Your task to perform on an android device: move a message to another label in the gmail app Image 0: 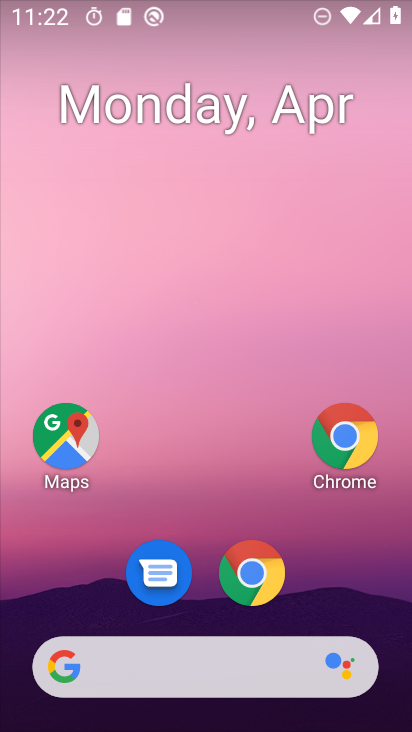
Step 0: drag from (335, 490) to (250, 17)
Your task to perform on an android device: move a message to another label in the gmail app Image 1: 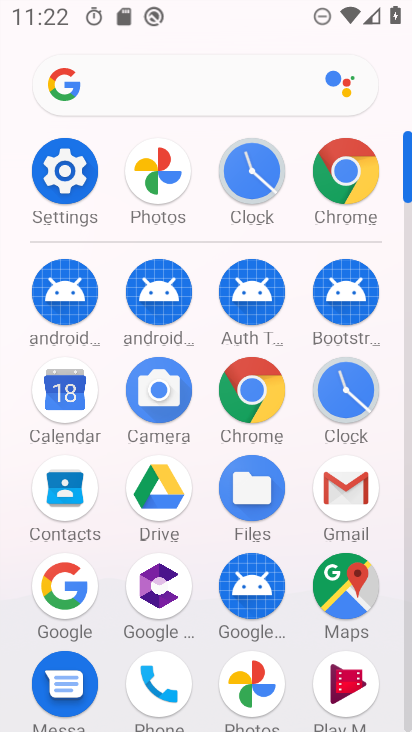
Step 1: click (341, 460)
Your task to perform on an android device: move a message to another label in the gmail app Image 2: 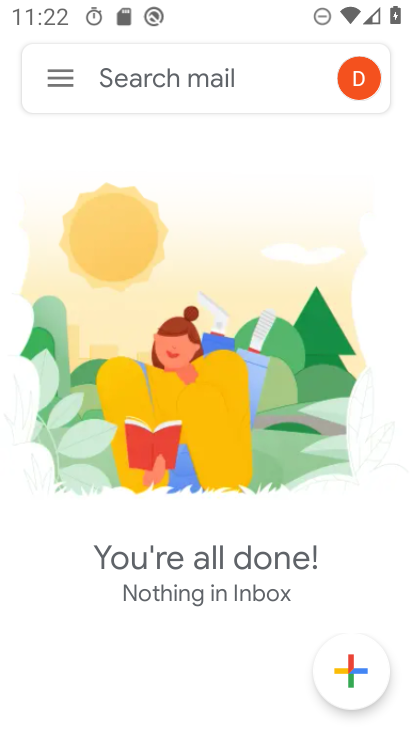
Step 2: task complete